Your task to perform on an android device: Add macbook pro to the cart on costco Image 0: 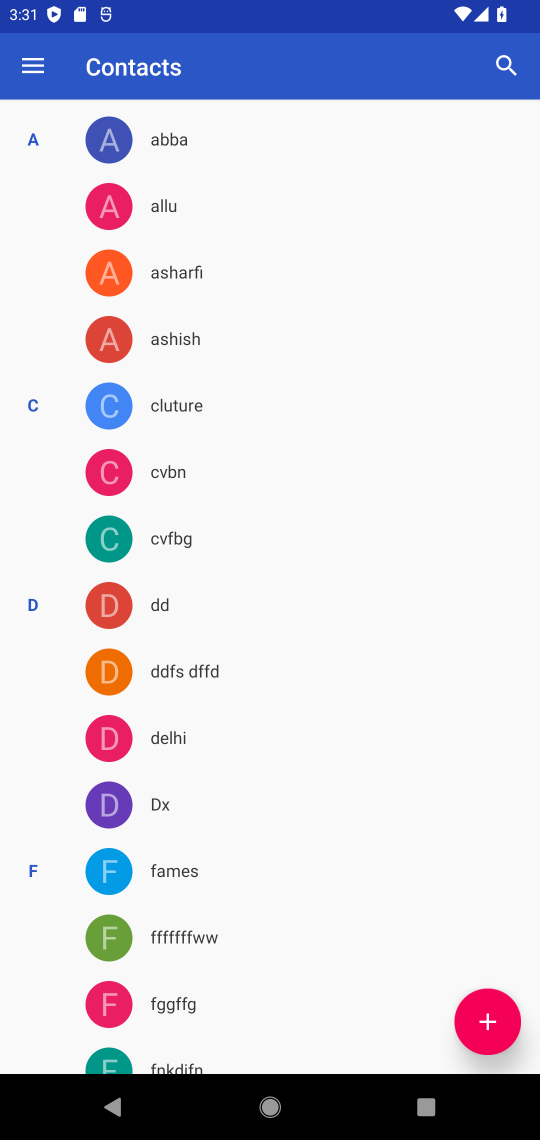
Step 0: press home button
Your task to perform on an android device: Add macbook pro to the cart on costco Image 1: 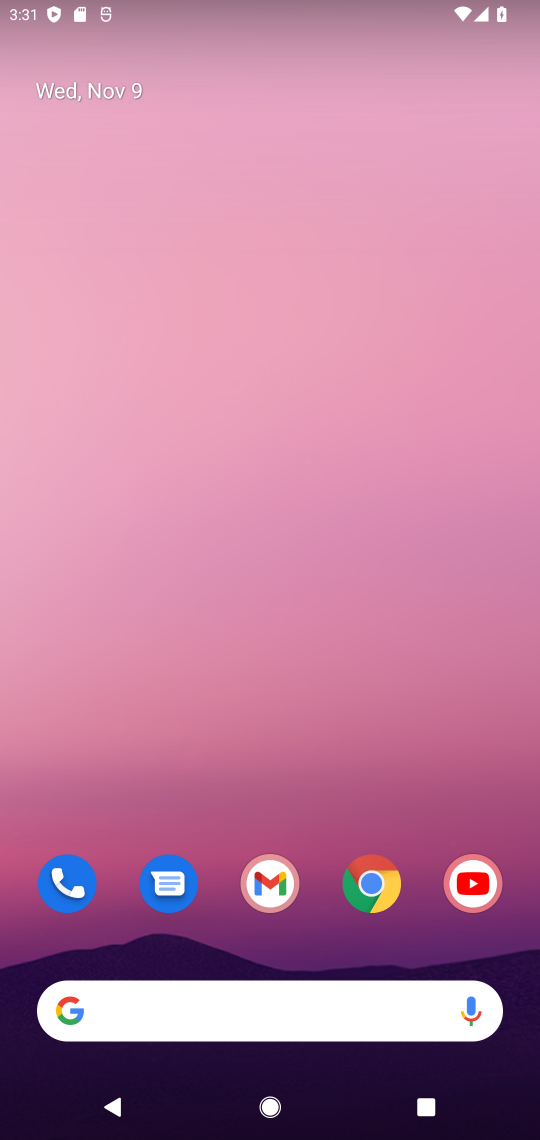
Step 1: click (366, 875)
Your task to perform on an android device: Add macbook pro to the cart on costco Image 2: 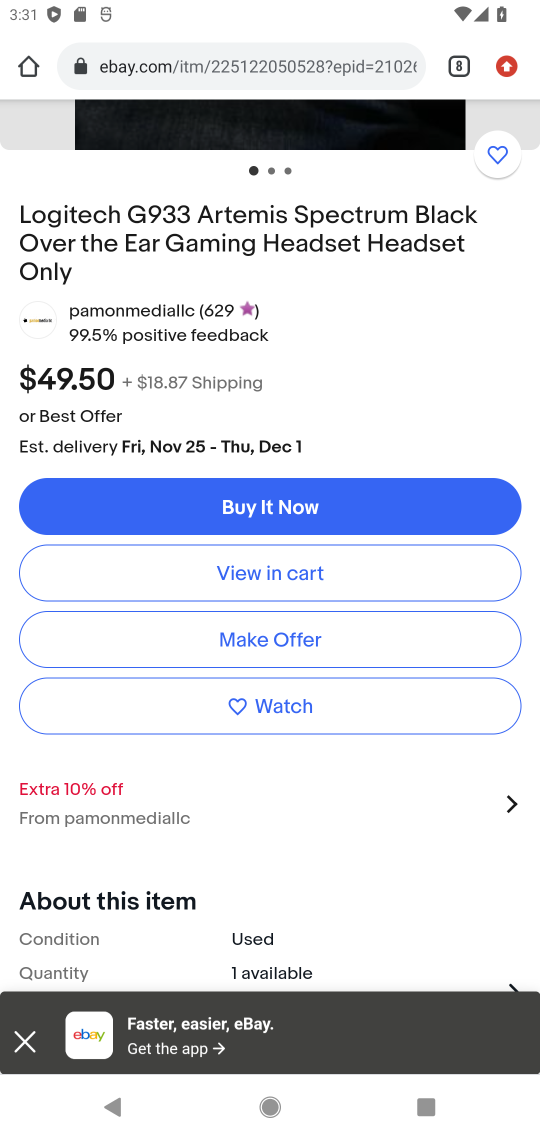
Step 2: click (452, 56)
Your task to perform on an android device: Add macbook pro to the cart on costco Image 3: 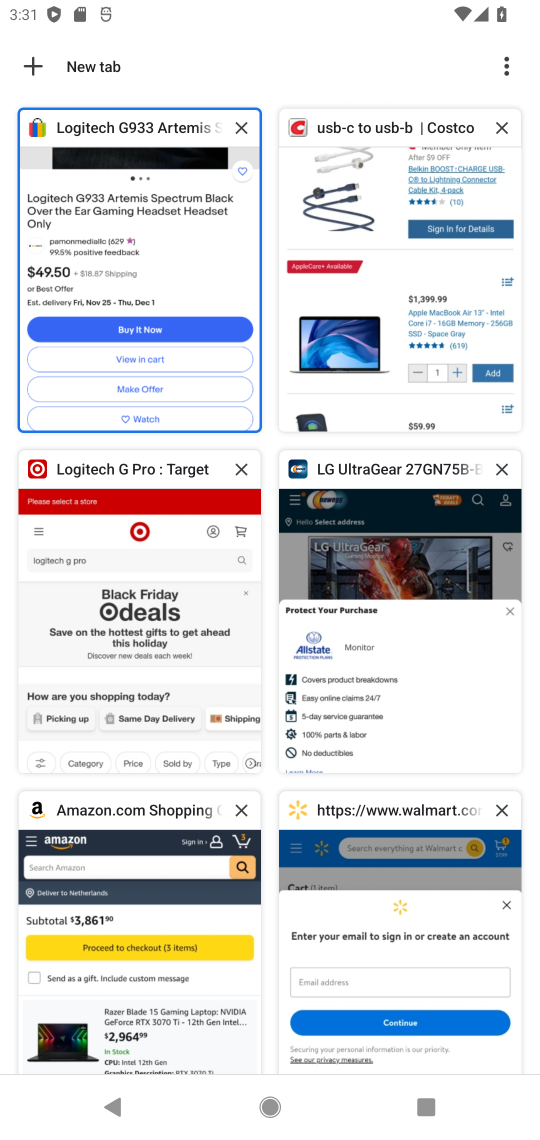
Step 3: click (400, 195)
Your task to perform on an android device: Add macbook pro to the cart on costco Image 4: 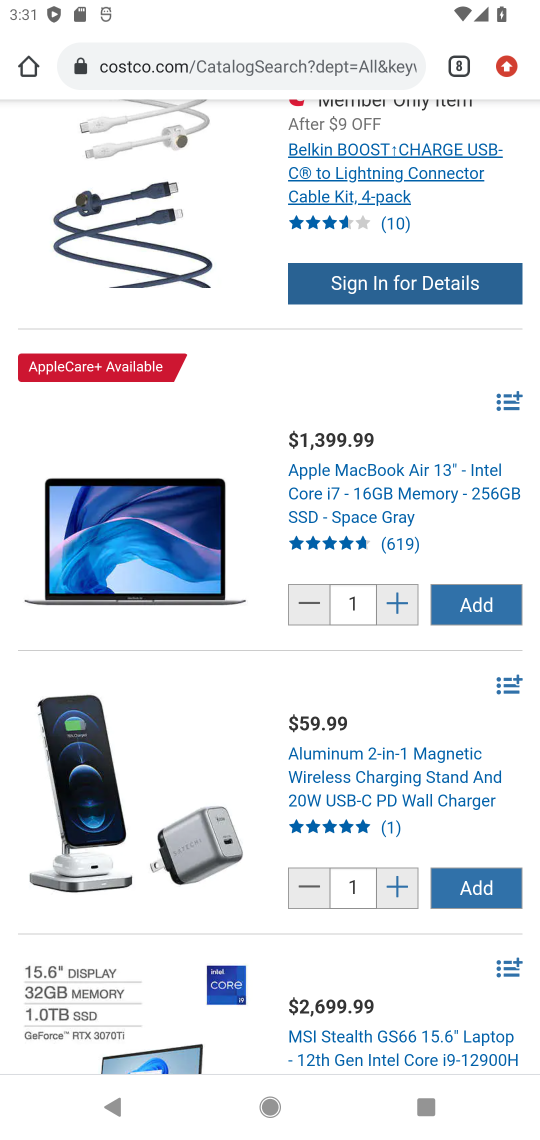
Step 4: drag from (234, 143) to (305, 1129)
Your task to perform on an android device: Add macbook pro to the cart on costco Image 5: 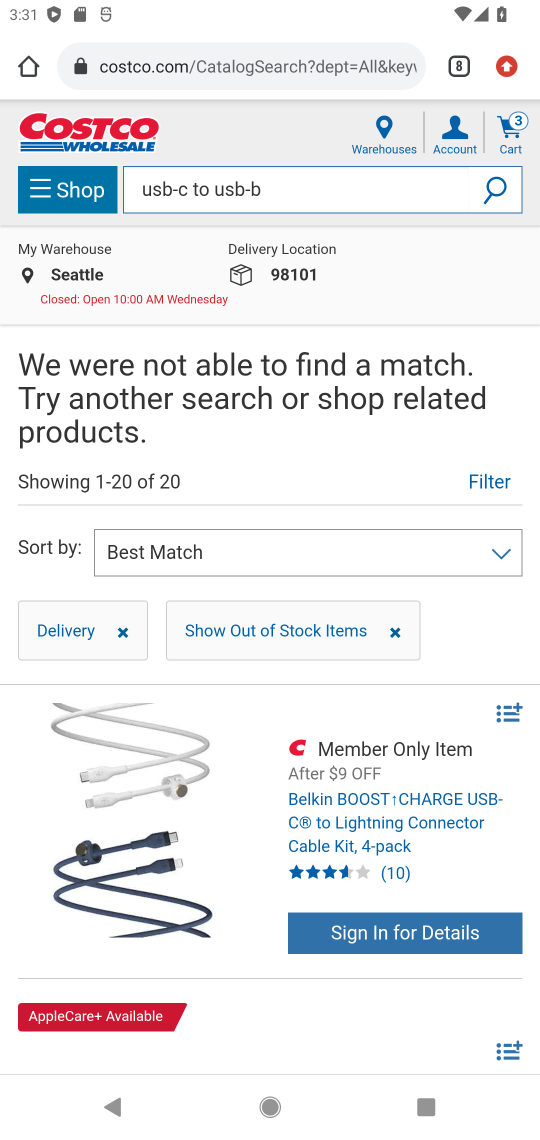
Step 5: click (344, 177)
Your task to perform on an android device: Add macbook pro to the cart on costco Image 6: 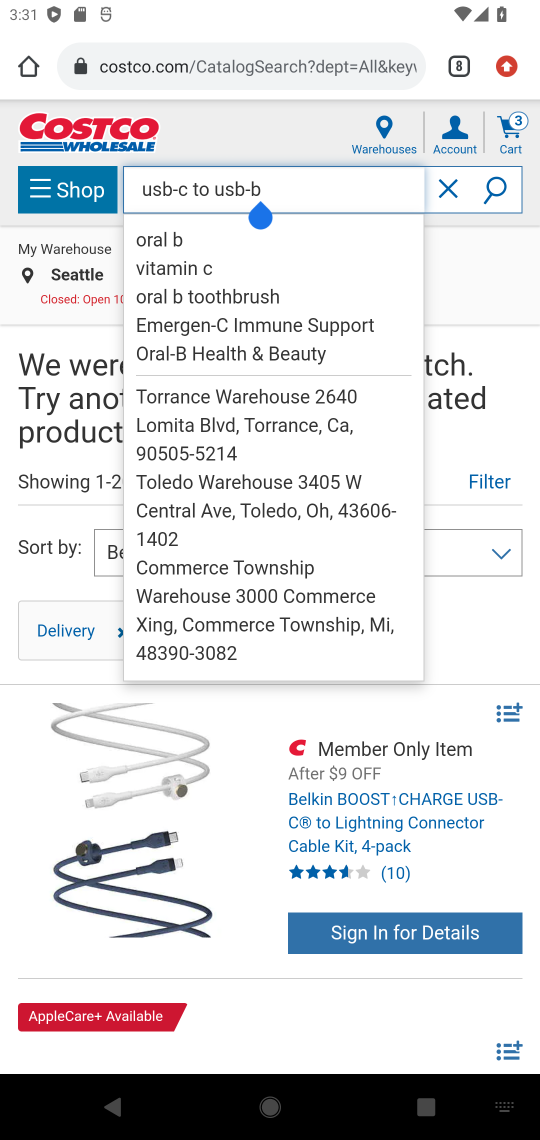
Step 6: click (445, 186)
Your task to perform on an android device: Add macbook pro to the cart on costco Image 7: 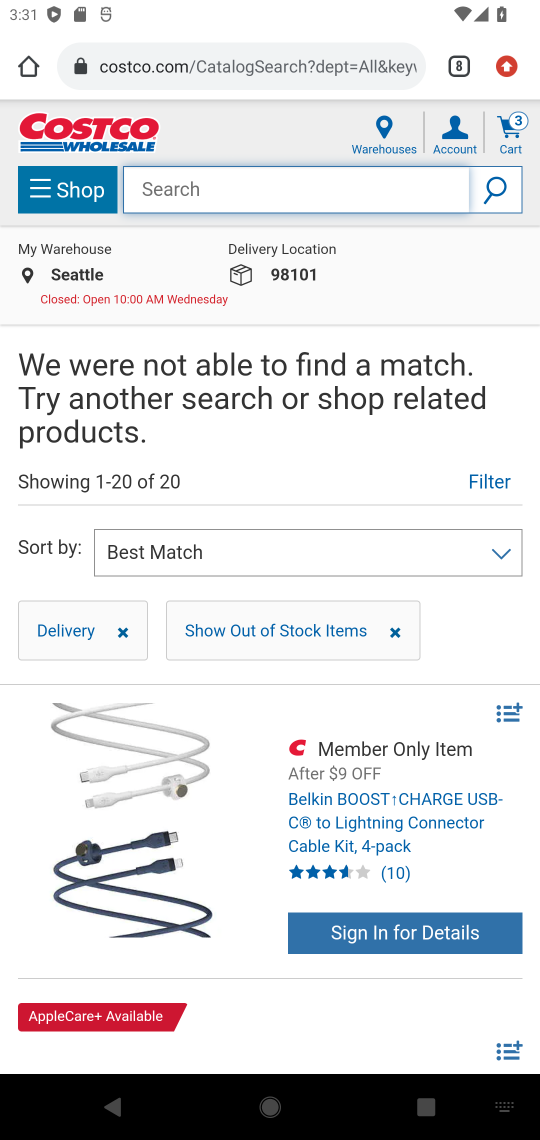
Step 7: type "macbook pro"
Your task to perform on an android device: Add macbook pro to the cart on costco Image 8: 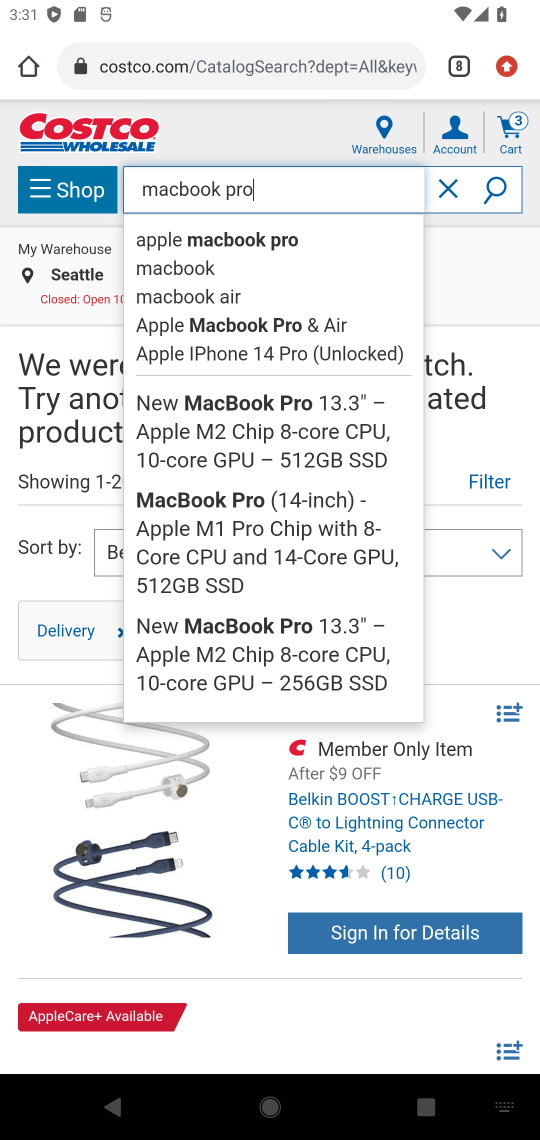
Step 8: click (501, 174)
Your task to perform on an android device: Add macbook pro to the cart on costco Image 9: 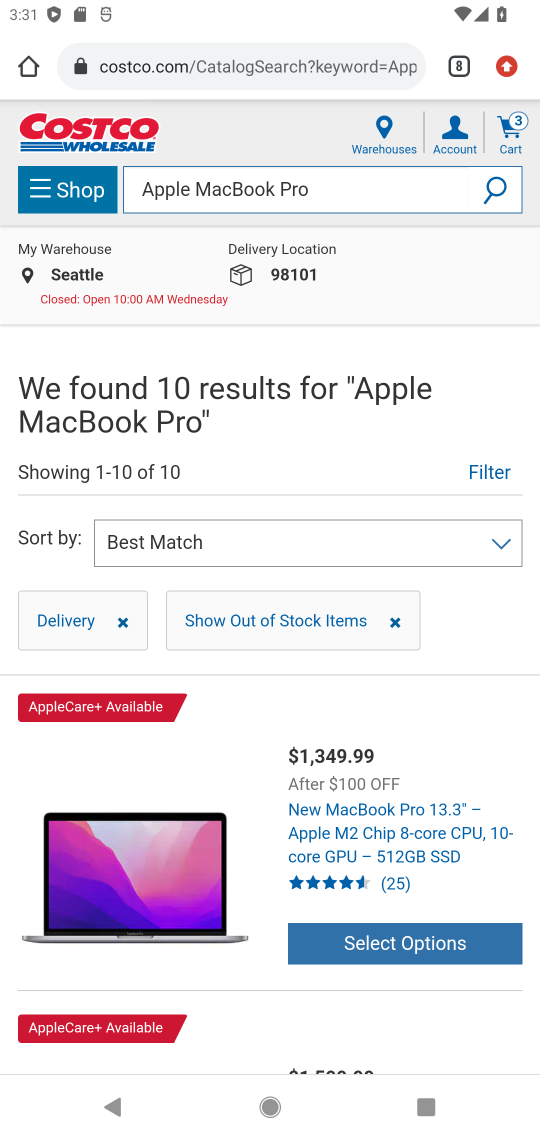
Step 9: click (423, 814)
Your task to perform on an android device: Add macbook pro to the cart on costco Image 10: 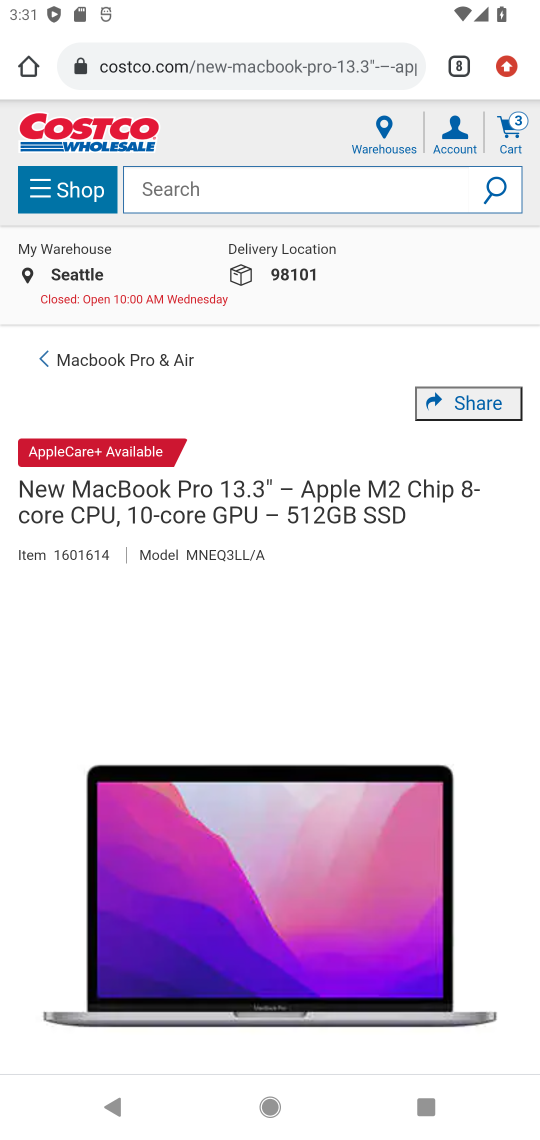
Step 10: drag from (503, 951) to (539, 451)
Your task to perform on an android device: Add macbook pro to the cart on costco Image 11: 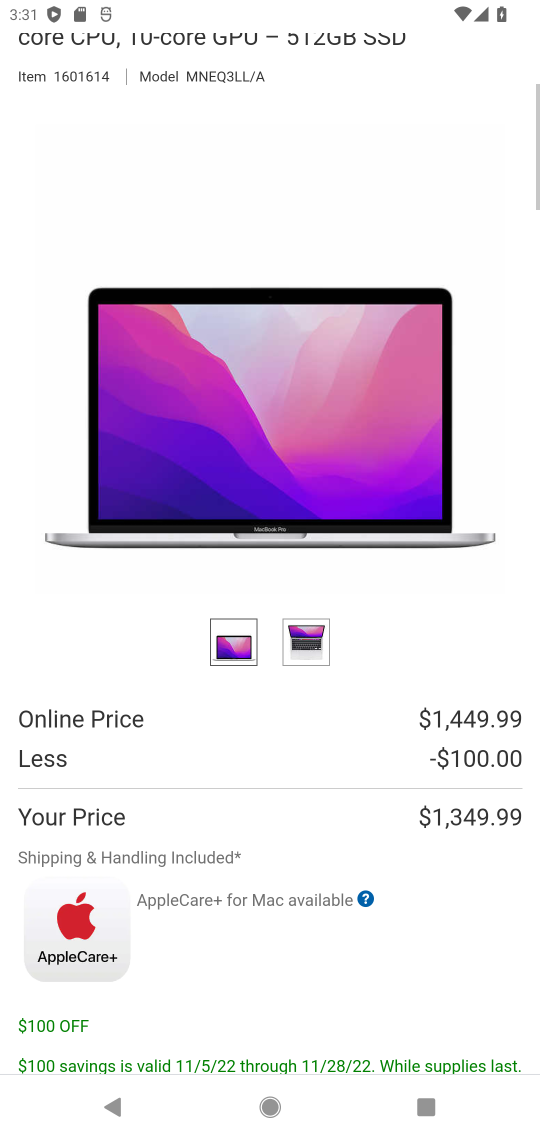
Step 11: drag from (280, 903) to (419, 389)
Your task to perform on an android device: Add macbook pro to the cart on costco Image 12: 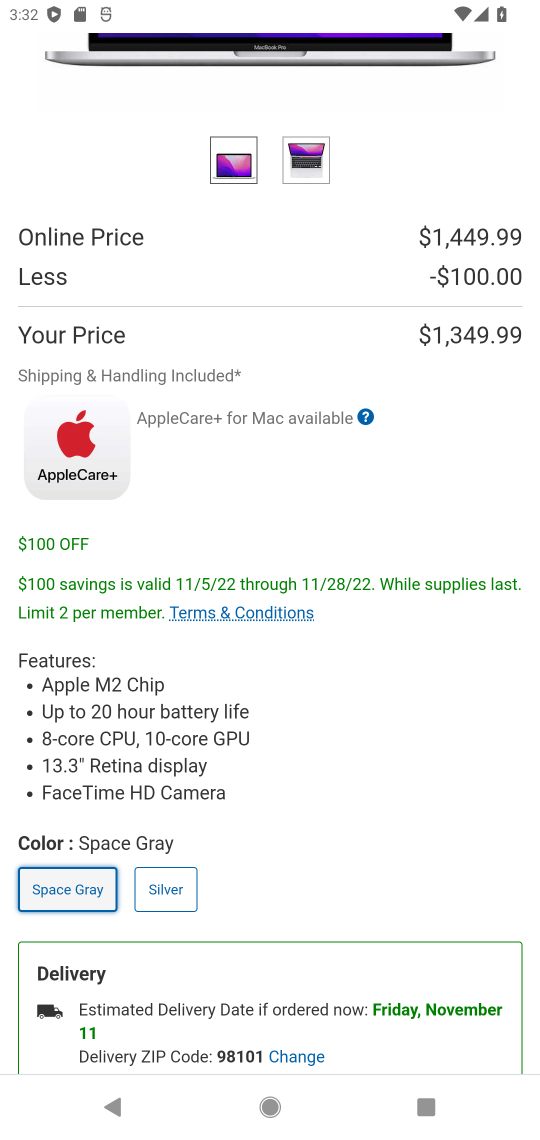
Step 12: drag from (365, 857) to (409, 478)
Your task to perform on an android device: Add macbook pro to the cart on costco Image 13: 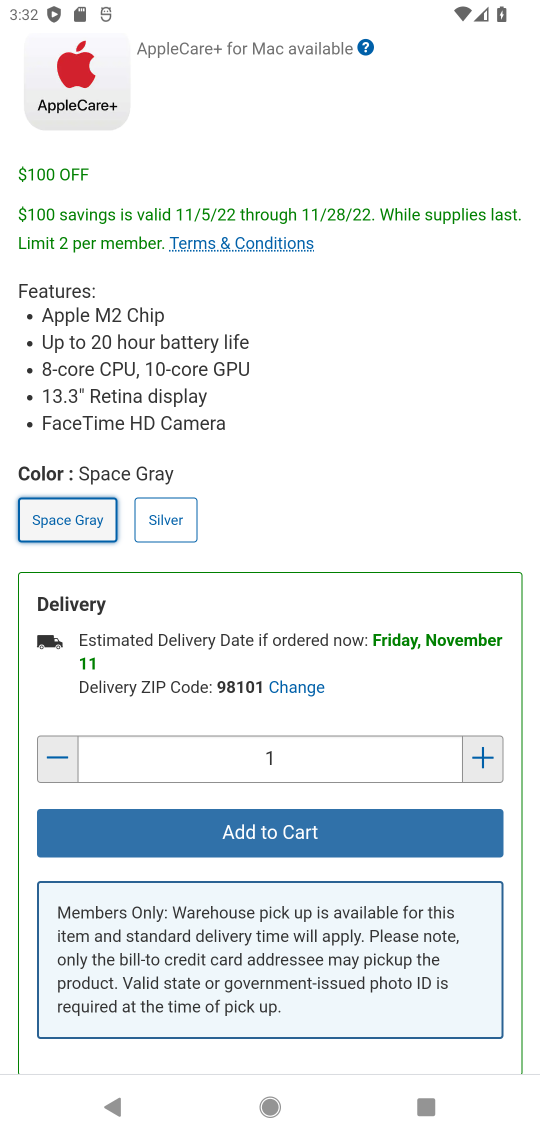
Step 13: click (337, 831)
Your task to perform on an android device: Add macbook pro to the cart on costco Image 14: 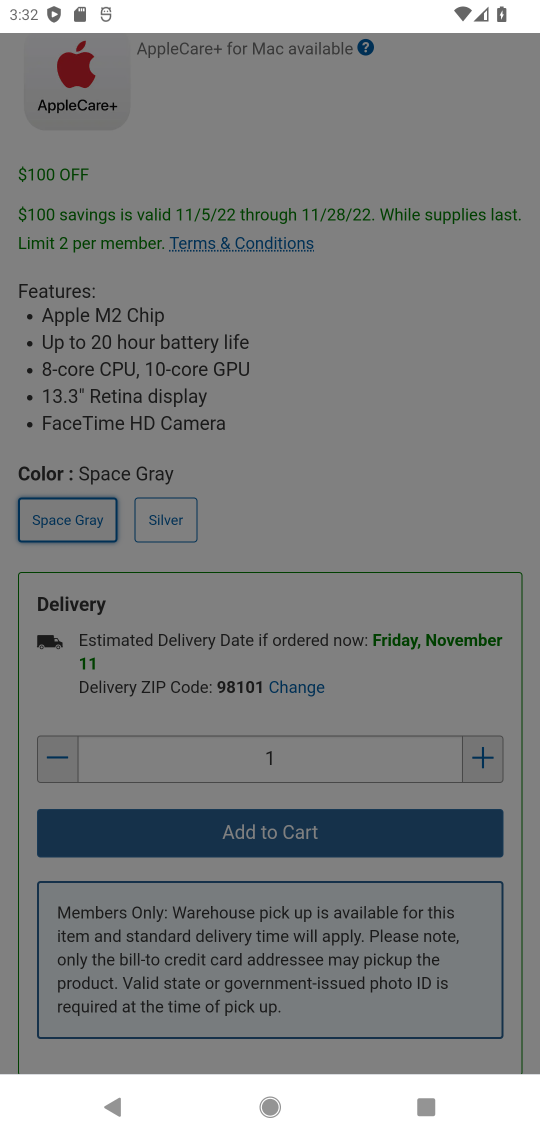
Step 14: task complete